Your task to perform on an android device: Go to CNN.com Image 0: 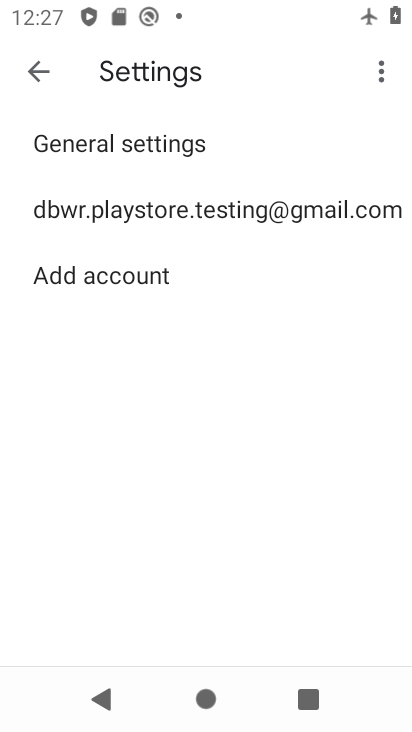
Step 0: press home button
Your task to perform on an android device: Go to CNN.com Image 1: 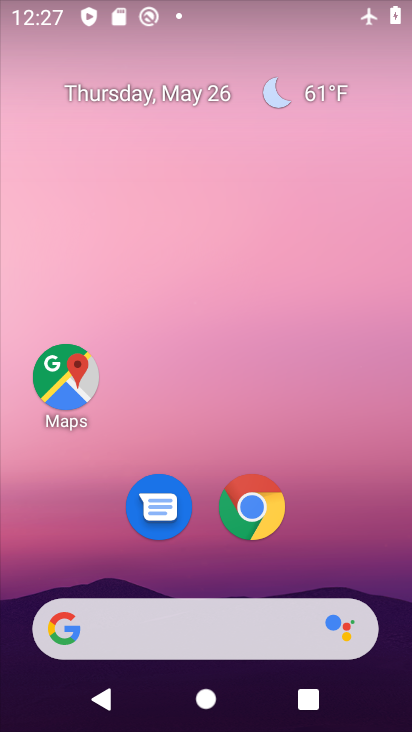
Step 1: click (260, 508)
Your task to perform on an android device: Go to CNN.com Image 2: 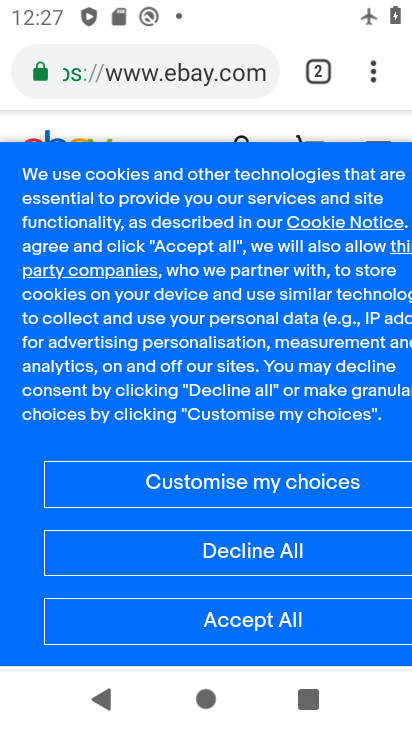
Step 2: click (244, 79)
Your task to perform on an android device: Go to CNN.com Image 3: 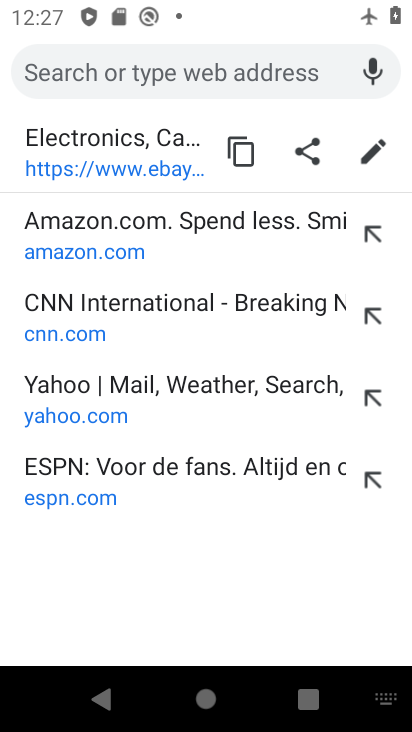
Step 3: type "cnn.com"
Your task to perform on an android device: Go to CNN.com Image 4: 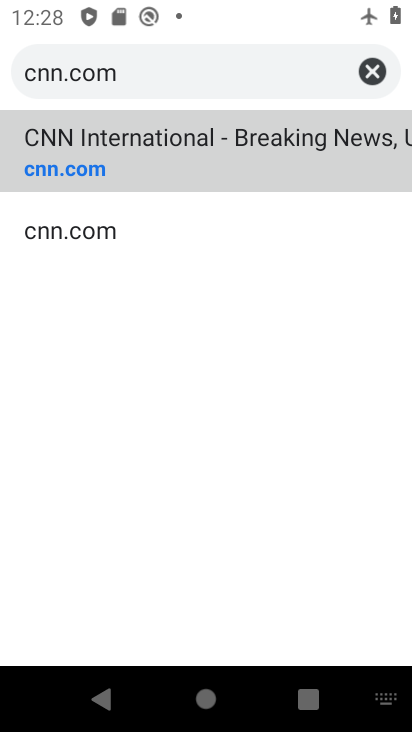
Step 4: click (323, 146)
Your task to perform on an android device: Go to CNN.com Image 5: 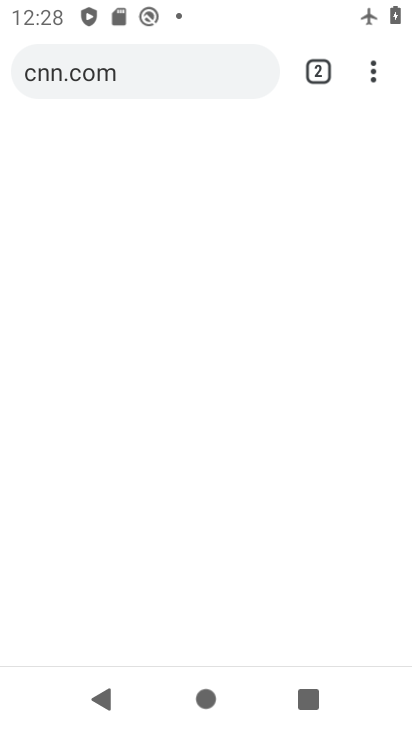
Step 5: task complete